Your task to perform on an android device: find snoozed emails in the gmail app Image 0: 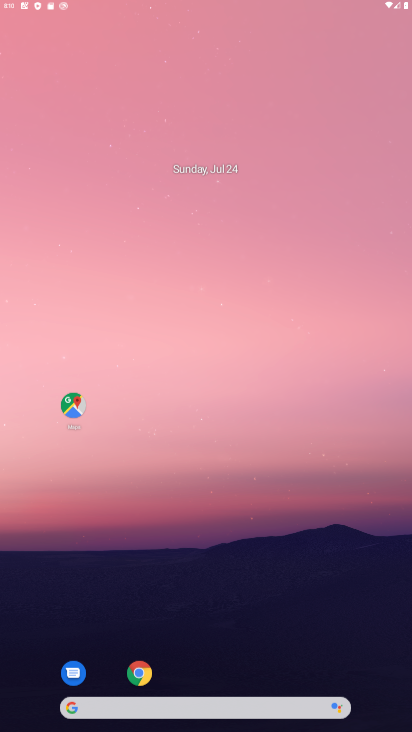
Step 0: click (282, 193)
Your task to perform on an android device: find snoozed emails in the gmail app Image 1: 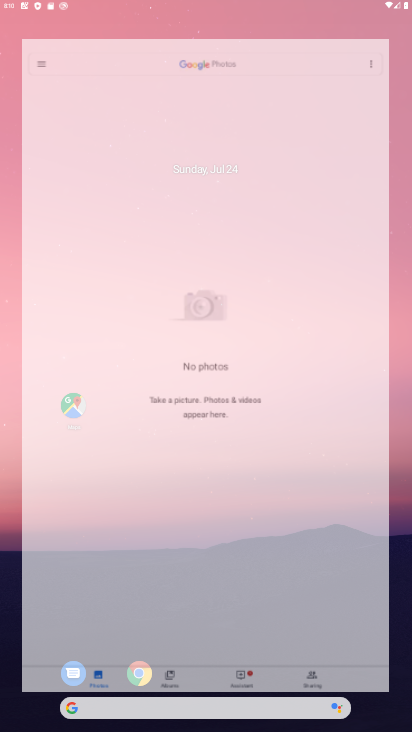
Step 1: drag from (224, 187) to (185, 731)
Your task to perform on an android device: find snoozed emails in the gmail app Image 2: 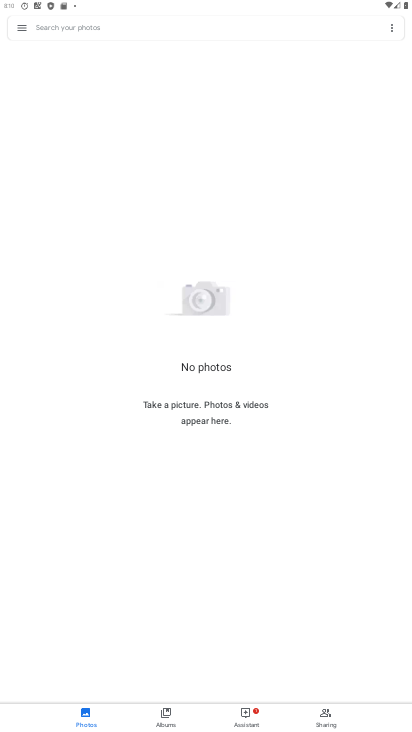
Step 2: drag from (181, 639) to (165, 133)
Your task to perform on an android device: find snoozed emails in the gmail app Image 3: 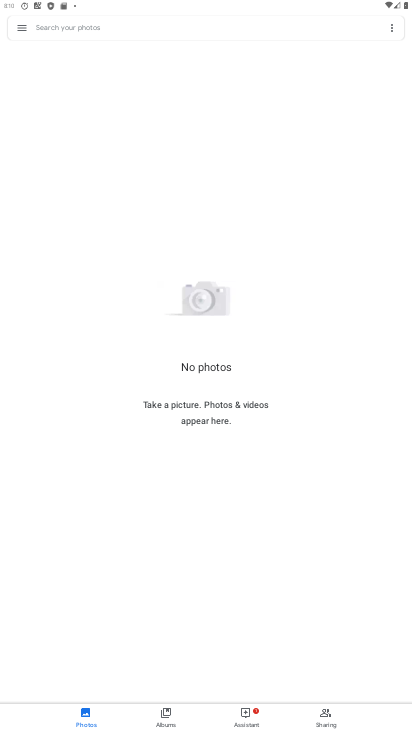
Step 3: drag from (138, 125) to (164, 605)
Your task to perform on an android device: find snoozed emails in the gmail app Image 4: 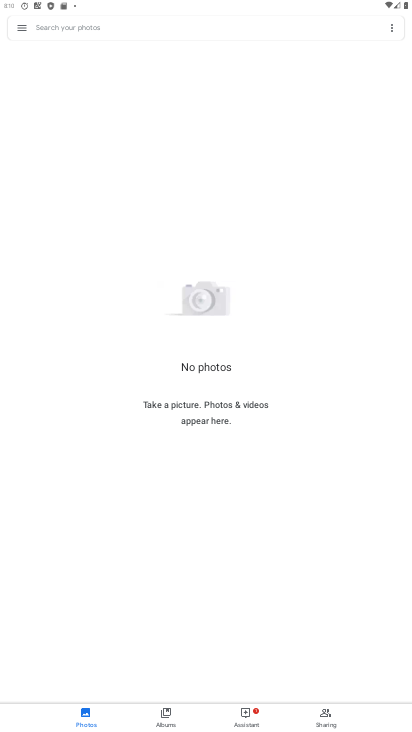
Step 4: press home button
Your task to perform on an android device: find snoozed emails in the gmail app Image 5: 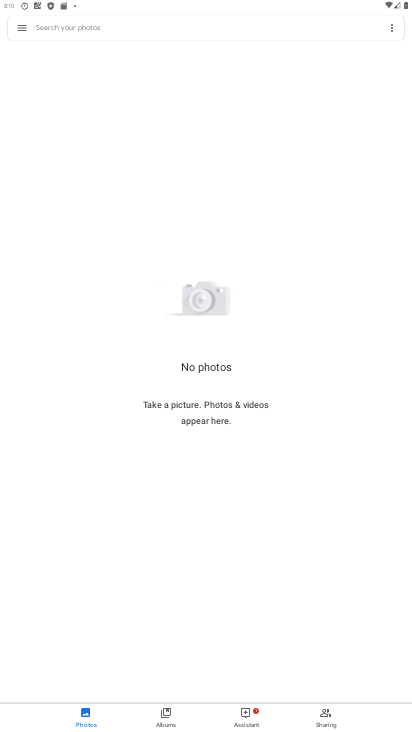
Step 5: press home button
Your task to perform on an android device: find snoozed emails in the gmail app Image 6: 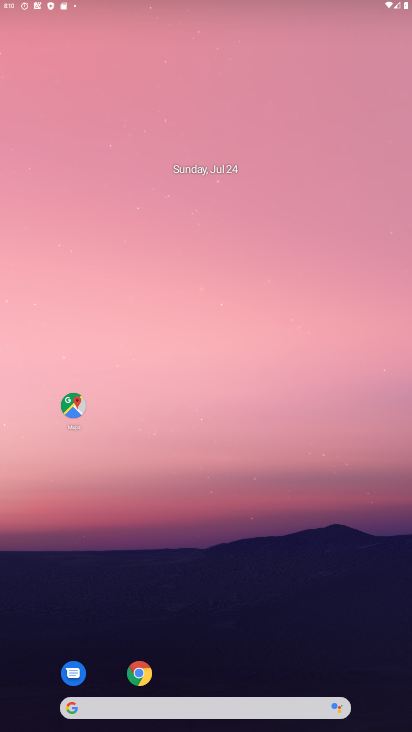
Step 6: drag from (225, 660) to (320, 13)
Your task to perform on an android device: find snoozed emails in the gmail app Image 7: 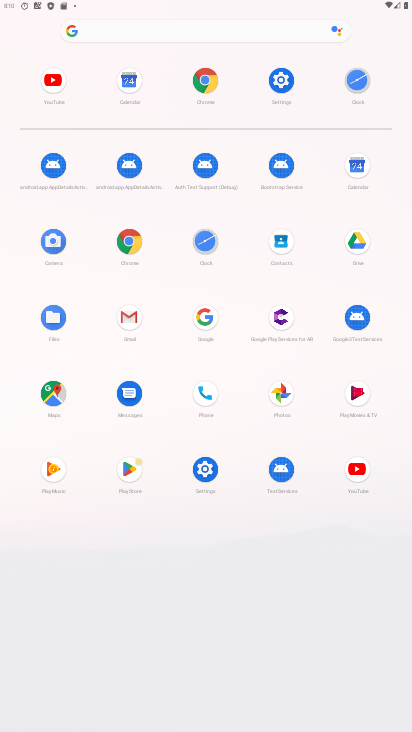
Step 7: click (113, 316)
Your task to perform on an android device: find snoozed emails in the gmail app Image 8: 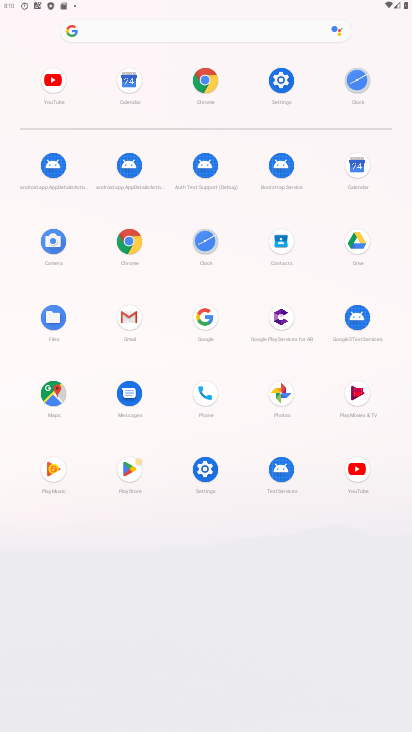
Step 8: click (130, 312)
Your task to perform on an android device: find snoozed emails in the gmail app Image 9: 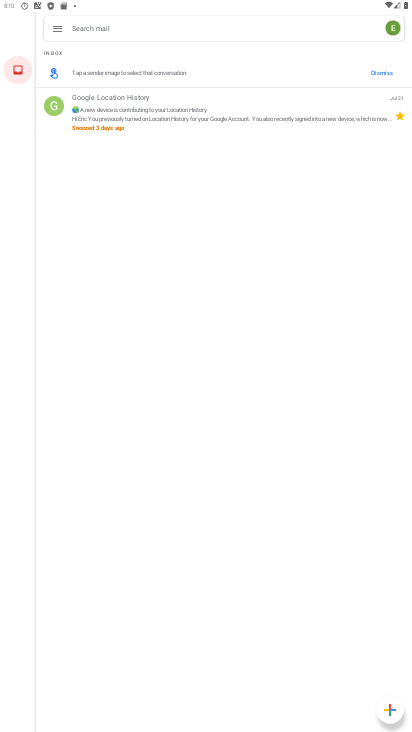
Step 9: click (52, 26)
Your task to perform on an android device: find snoozed emails in the gmail app Image 10: 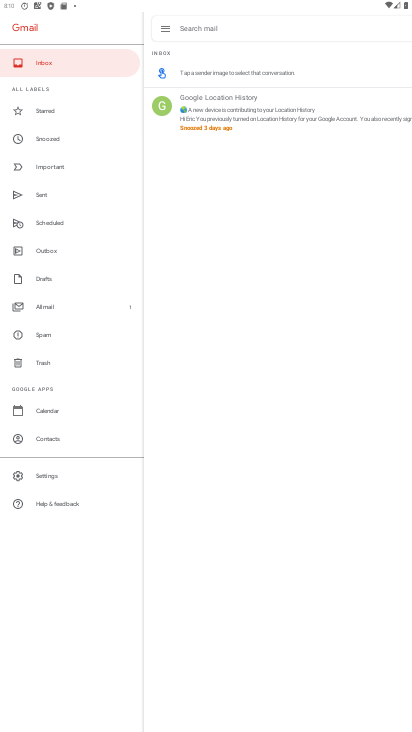
Step 10: click (48, 146)
Your task to perform on an android device: find snoozed emails in the gmail app Image 11: 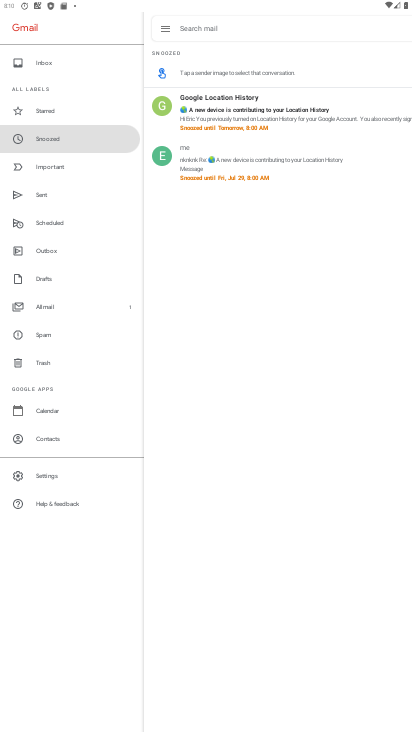
Step 11: task complete